Your task to perform on an android device: Open Yahoo.com Image 0: 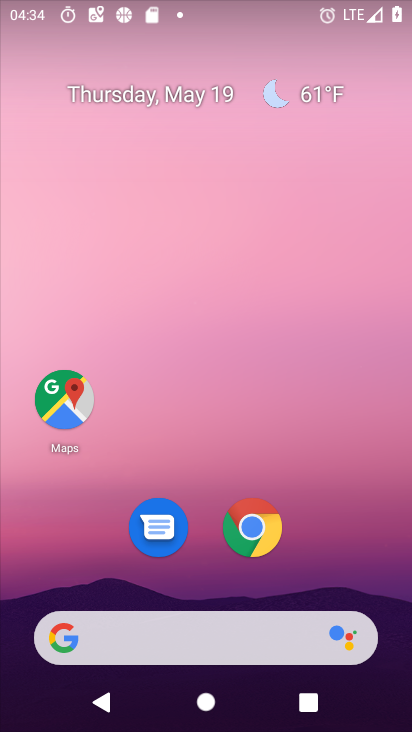
Step 0: click (255, 535)
Your task to perform on an android device: Open Yahoo.com Image 1: 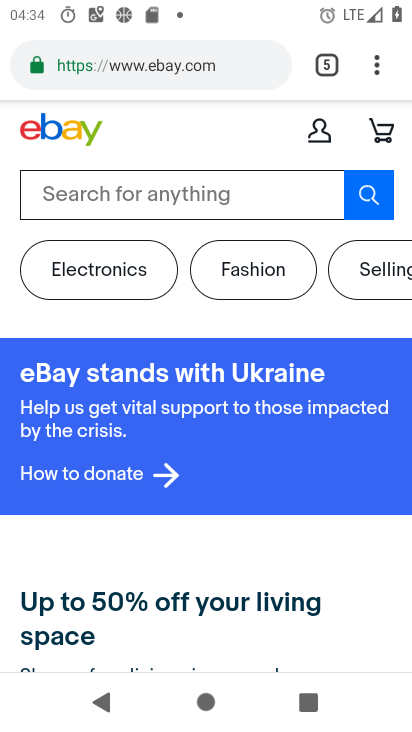
Step 1: click (333, 59)
Your task to perform on an android device: Open Yahoo.com Image 2: 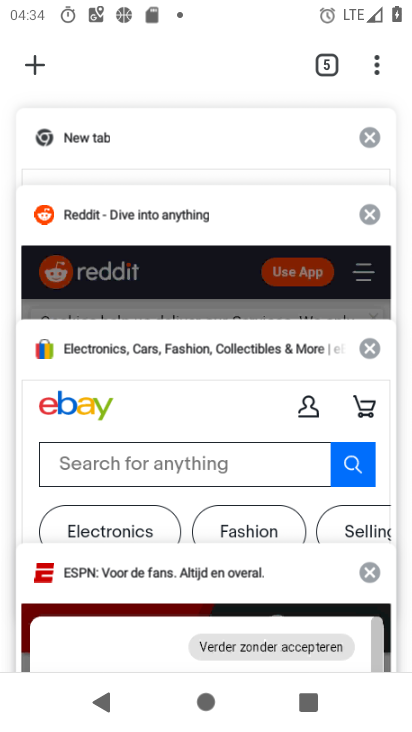
Step 2: click (65, 127)
Your task to perform on an android device: Open Yahoo.com Image 3: 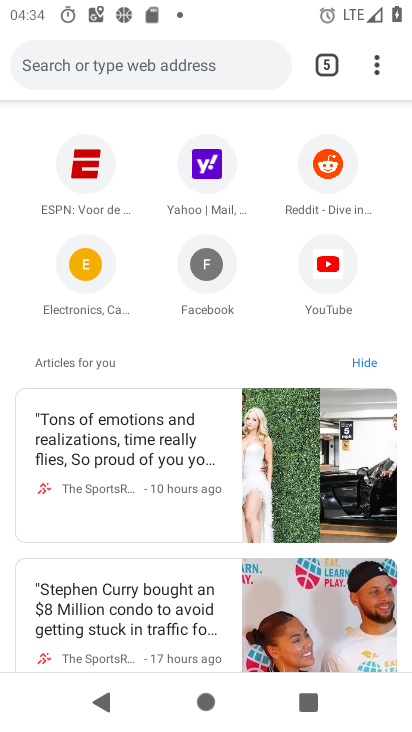
Step 3: click (194, 180)
Your task to perform on an android device: Open Yahoo.com Image 4: 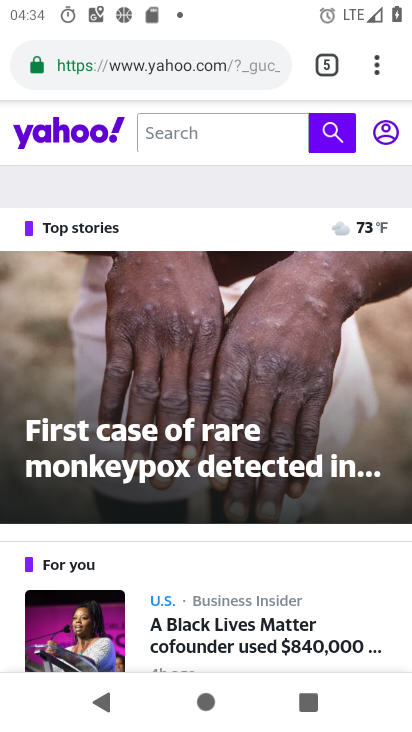
Step 4: task complete